Your task to perform on an android device: set the stopwatch Image 0: 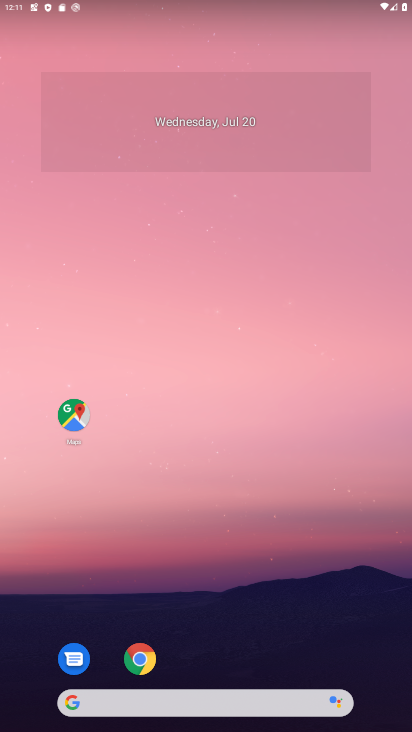
Step 0: drag from (269, 609) to (234, 216)
Your task to perform on an android device: set the stopwatch Image 1: 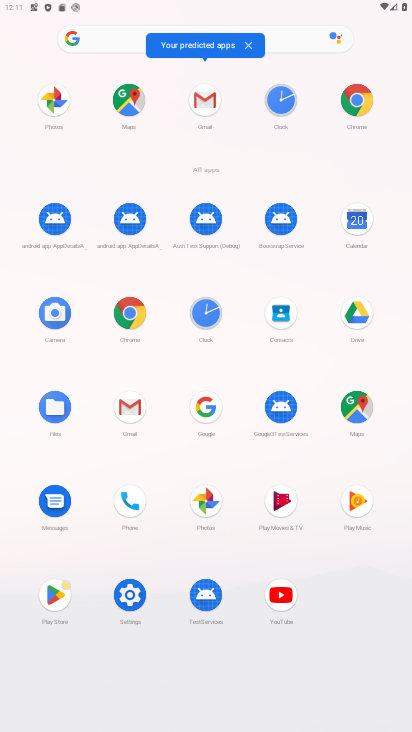
Step 1: click (208, 316)
Your task to perform on an android device: set the stopwatch Image 2: 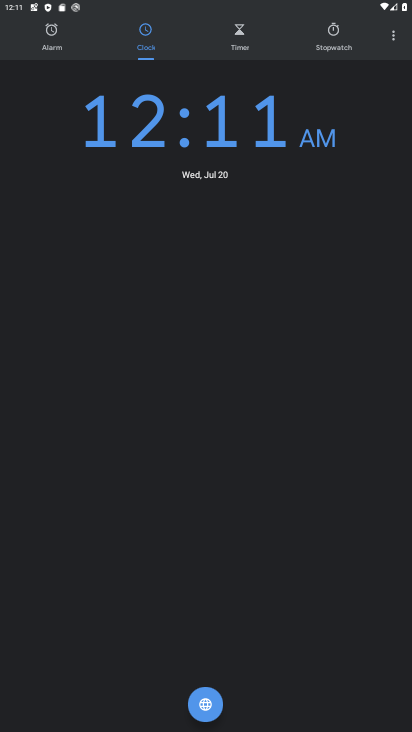
Step 2: click (337, 37)
Your task to perform on an android device: set the stopwatch Image 3: 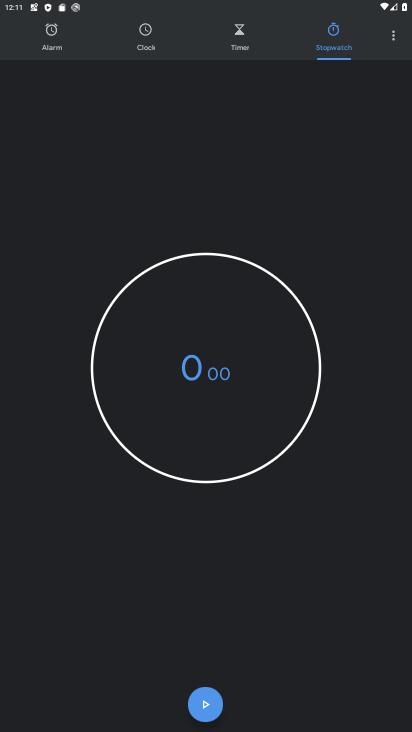
Step 3: task complete